Your task to perform on an android device: toggle javascript in the chrome app Image 0: 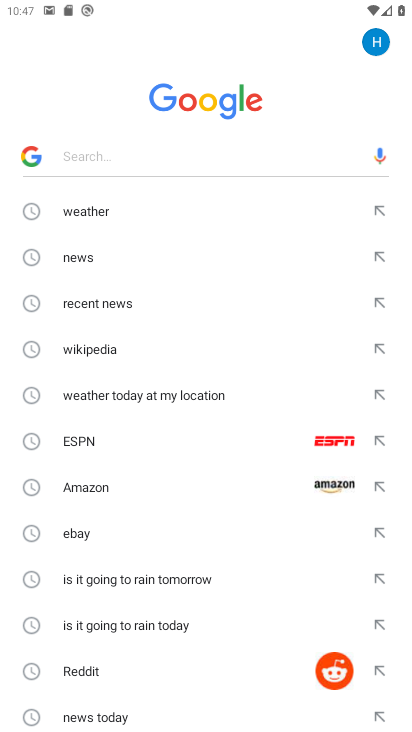
Step 0: drag from (227, 630) to (227, 550)
Your task to perform on an android device: toggle javascript in the chrome app Image 1: 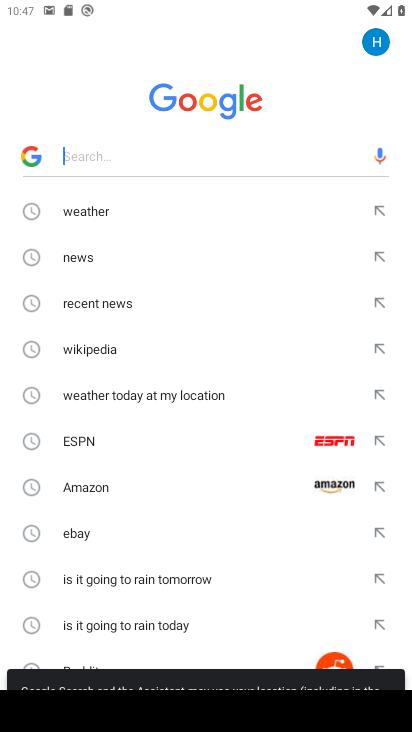
Step 1: press home button
Your task to perform on an android device: toggle javascript in the chrome app Image 2: 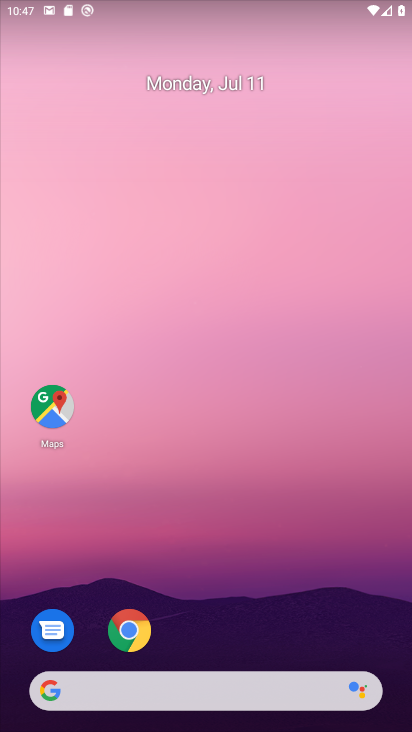
Step 2: drag from (196, 622) to (260, 1)
Your task to perform on an android device: toggle javascript in the chrome app Image 3: 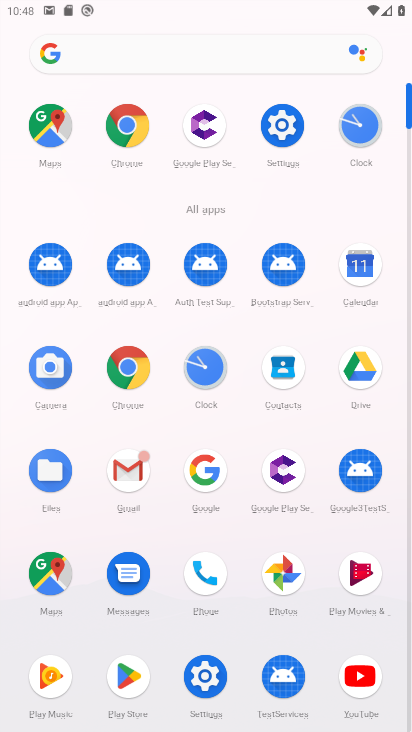
Step 3: click (126, 142)
Your task to perform on an android device: toggle javascript in the chrome app Image 4: 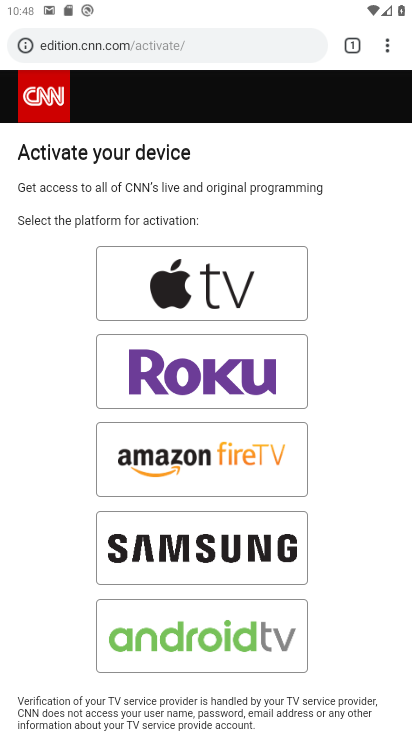
Step 4: click (384, 49)
Your task to perform on an android device: toggle javascript in the chrome app Image 5: 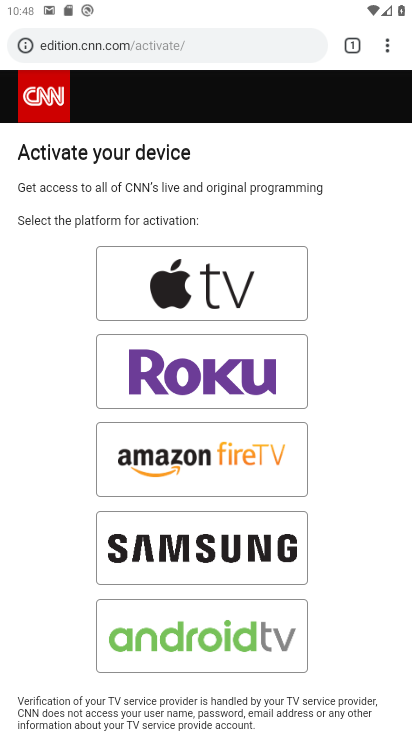
Step 5: click (386, 47)
Your task to perform on an android device: toggle javascript in the chrome app Image 6: 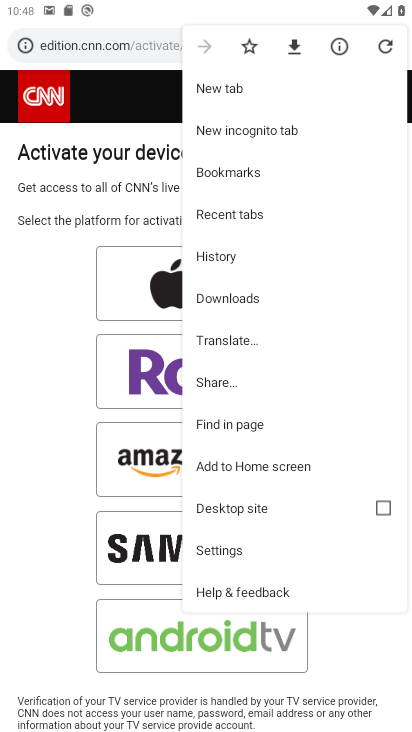
Step 6: click (241, 548)
Your task to perform on an android device: toggle javascript in the chrome app Image 7: 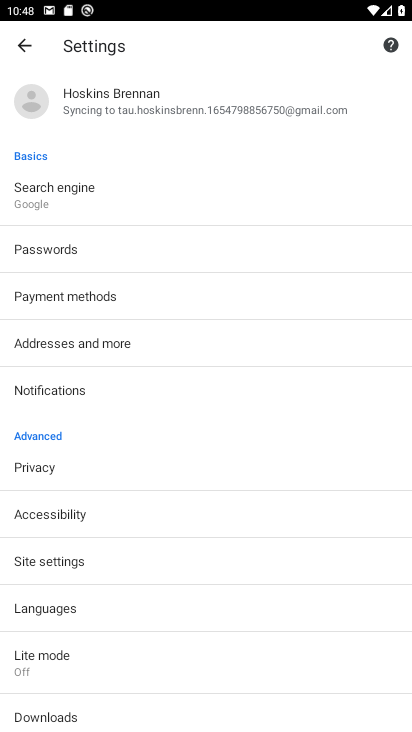
Step 7: drag from (175, 531) to (201, 379)
Your task to perform on an android device: toggle javascript in the chrome app Image 8: 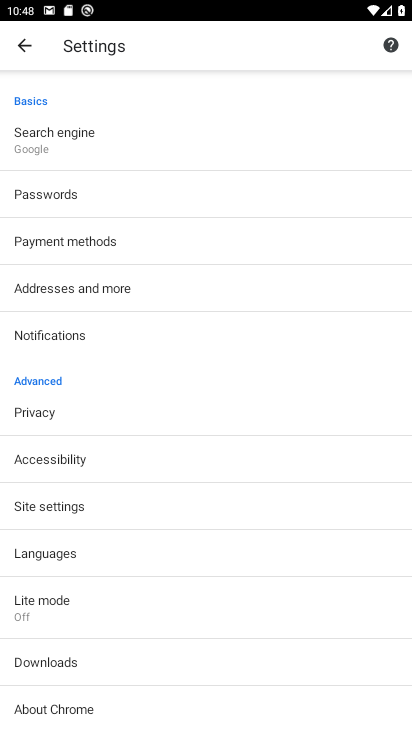
Step 8: click (70, 510)
Your task to perform on an android device: toggle javascript in the chrome app Image 9: 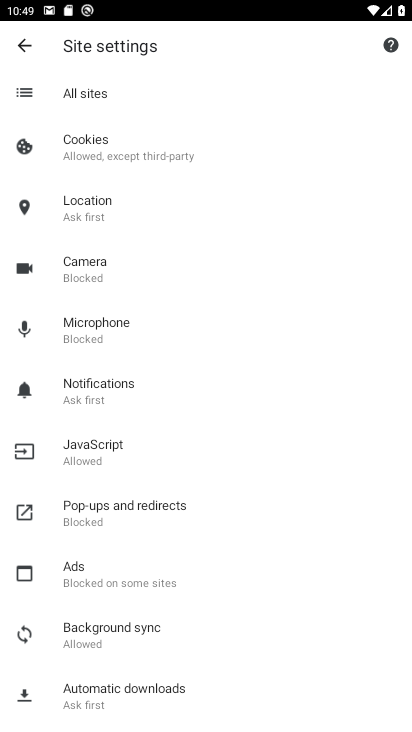
Step 9: click (99, 453)
Your task to perform on an android device: toggle javascript in the chrome app Image 10: 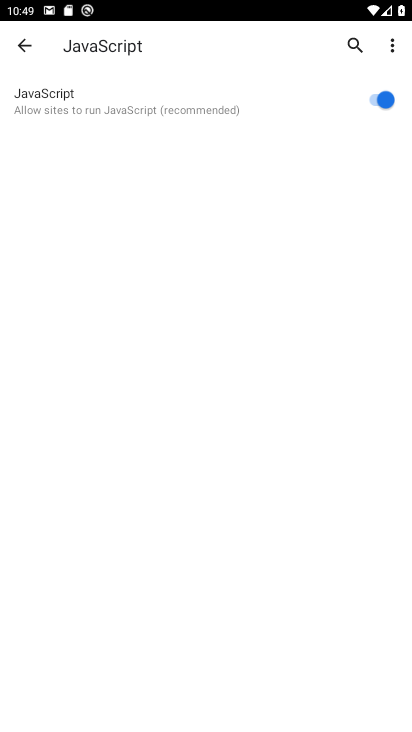
Step 10: click (366, 100)
Your task to perform on an android device: toggle javascript in the chrome app Image 11: 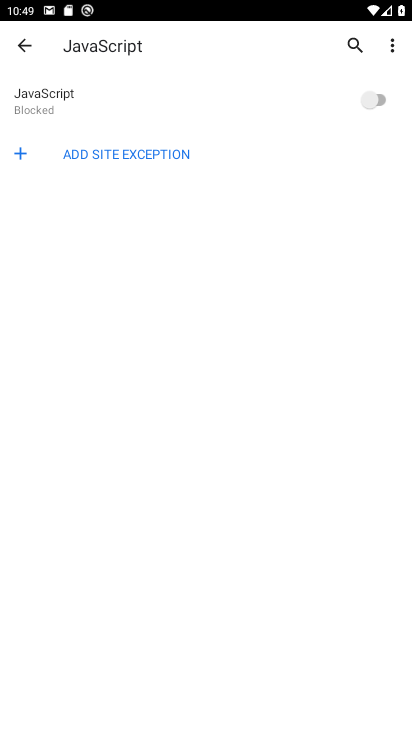
Step 11: task complete